Your task to perform on an android device: Clear all items from cart on amazon.com. Add "asus rog" to the cart on amazon.com, then select checkout. Image 0: 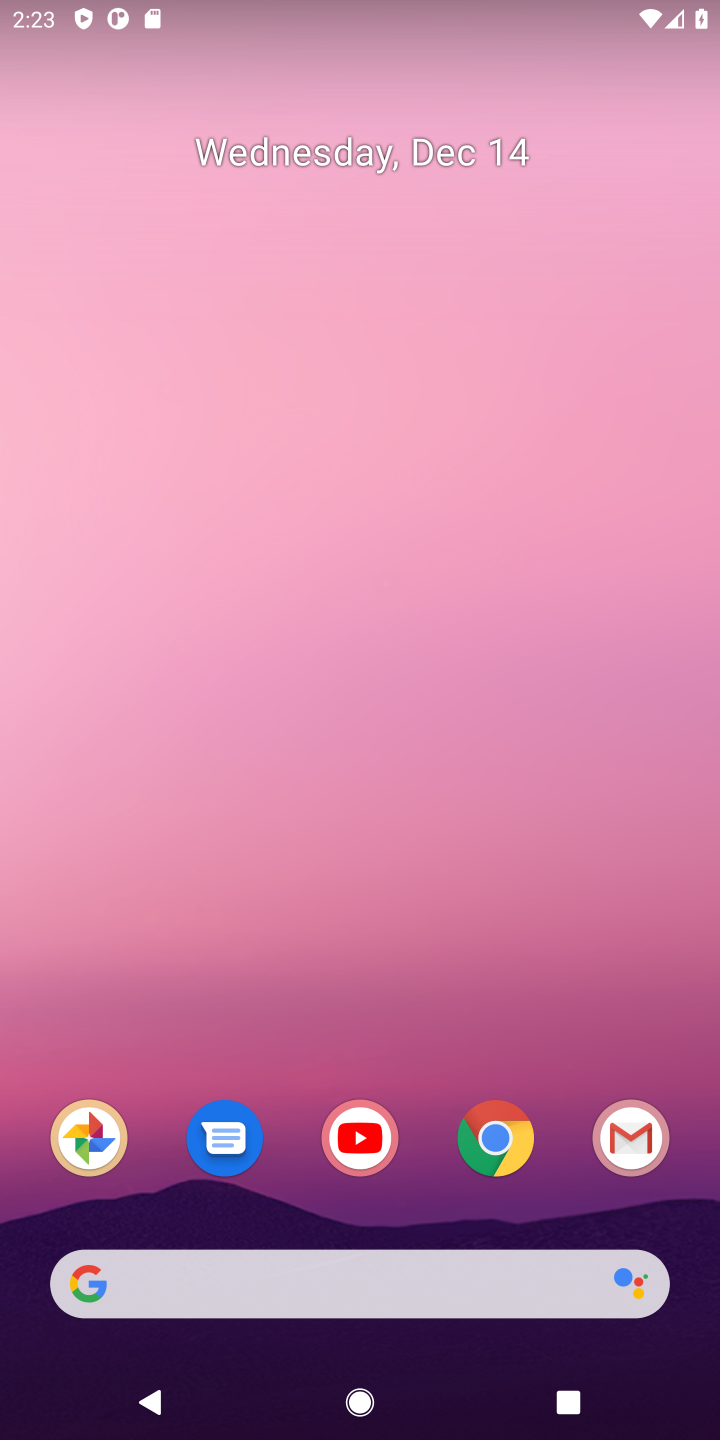
Step 0: click (492, 1122)
Your task to perform on an android device: Clear all items from cart on amazon.com. Add "asus rog" to the cart on amazon.com, then select checkout. Image 1: 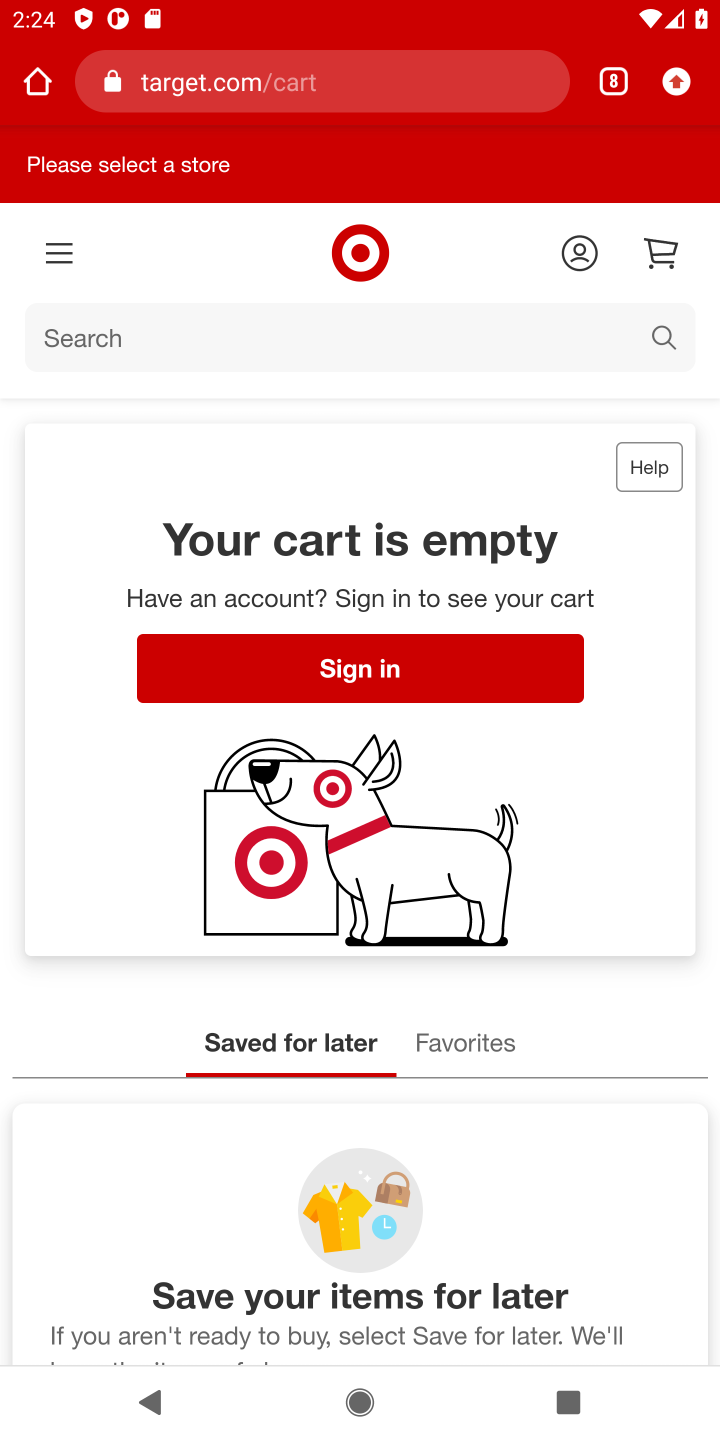
Step 1: click (616, 76)
Your task to perform on an android device: Clear all items from cart on amazon.com. Add "asus rog" to the cart on amazon.com, then select checkout. Image 2: 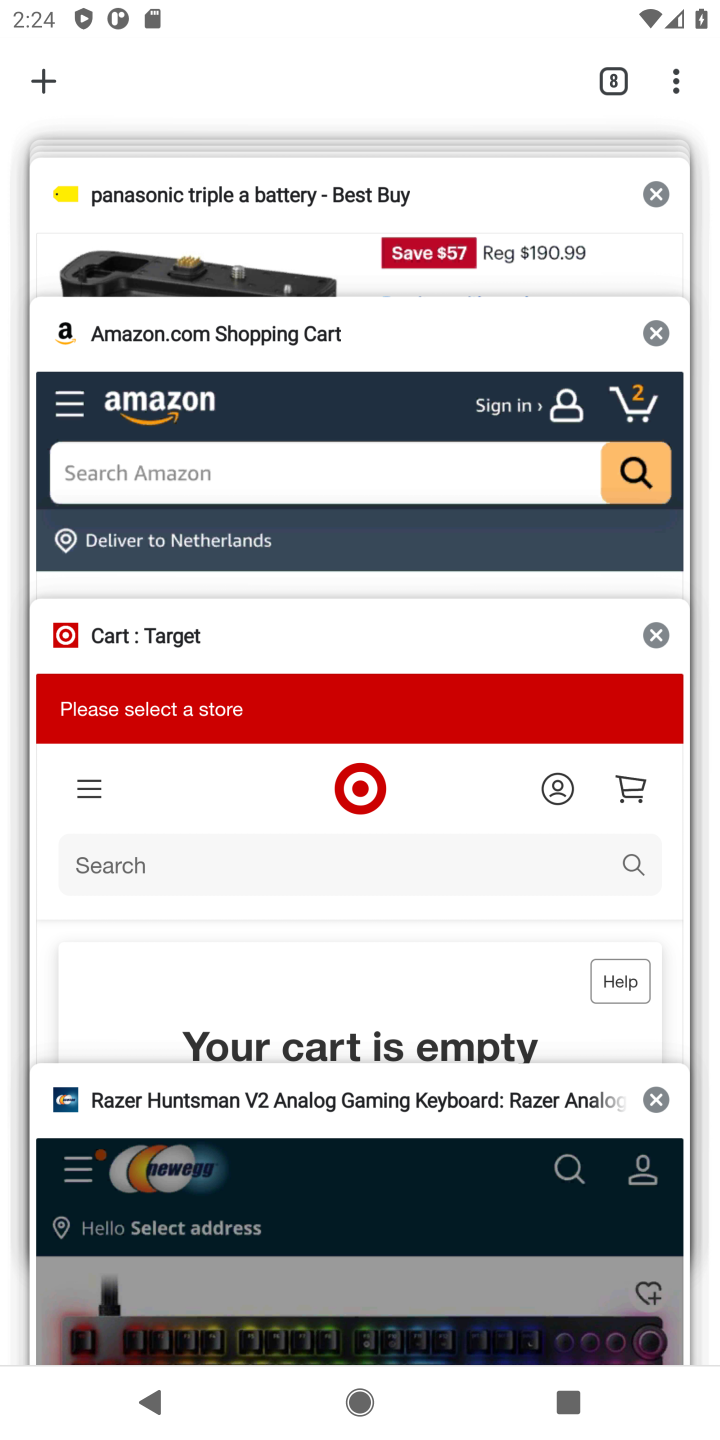
Step 2: click (409, 434)
Your task to perform on an android device: Clear all items from cart on amazon.com. Add "asus rog" to the cart on amazon.com, then select checkout. Image 3: 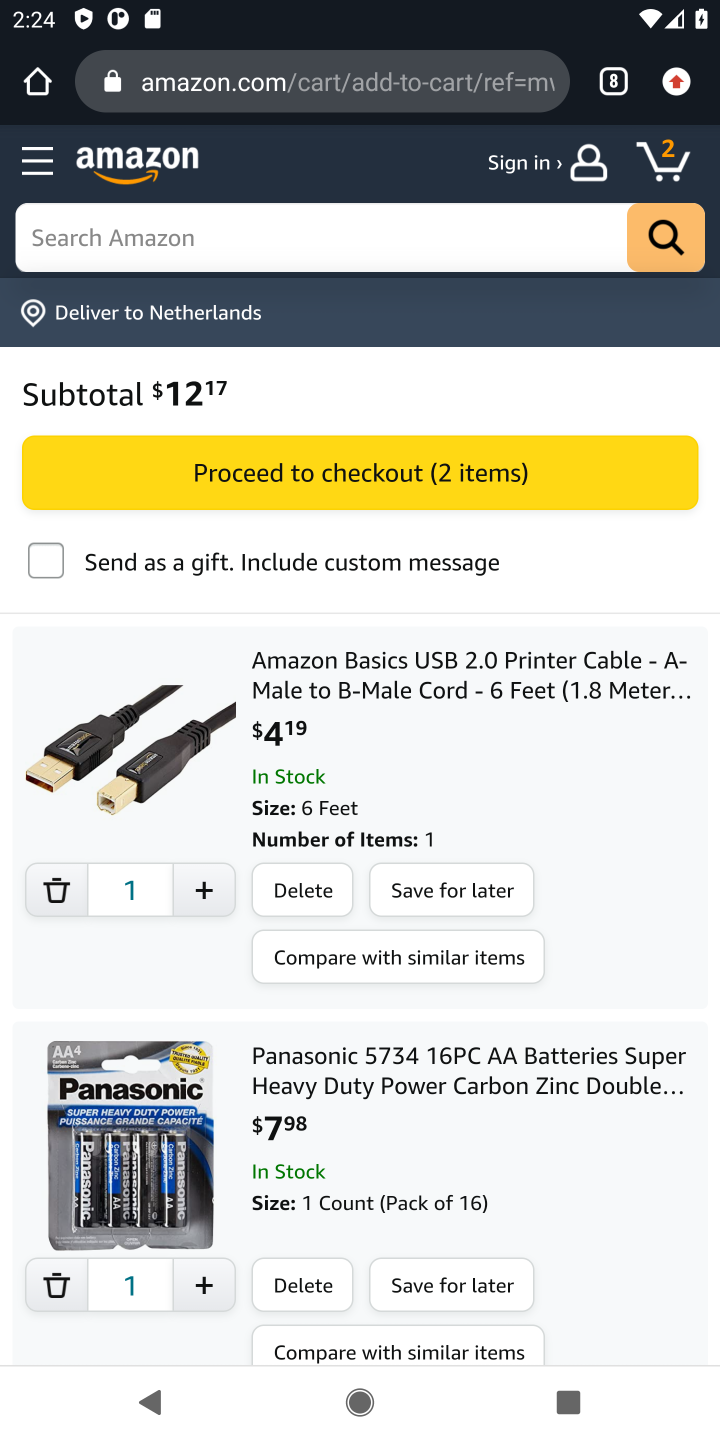
Step 3: click (305, 893)
Your task to perform on an android device: Clear all items from cart on amazon.com. Add "asus rog" to the cart on amazon.com, then select checkout. Image 4: 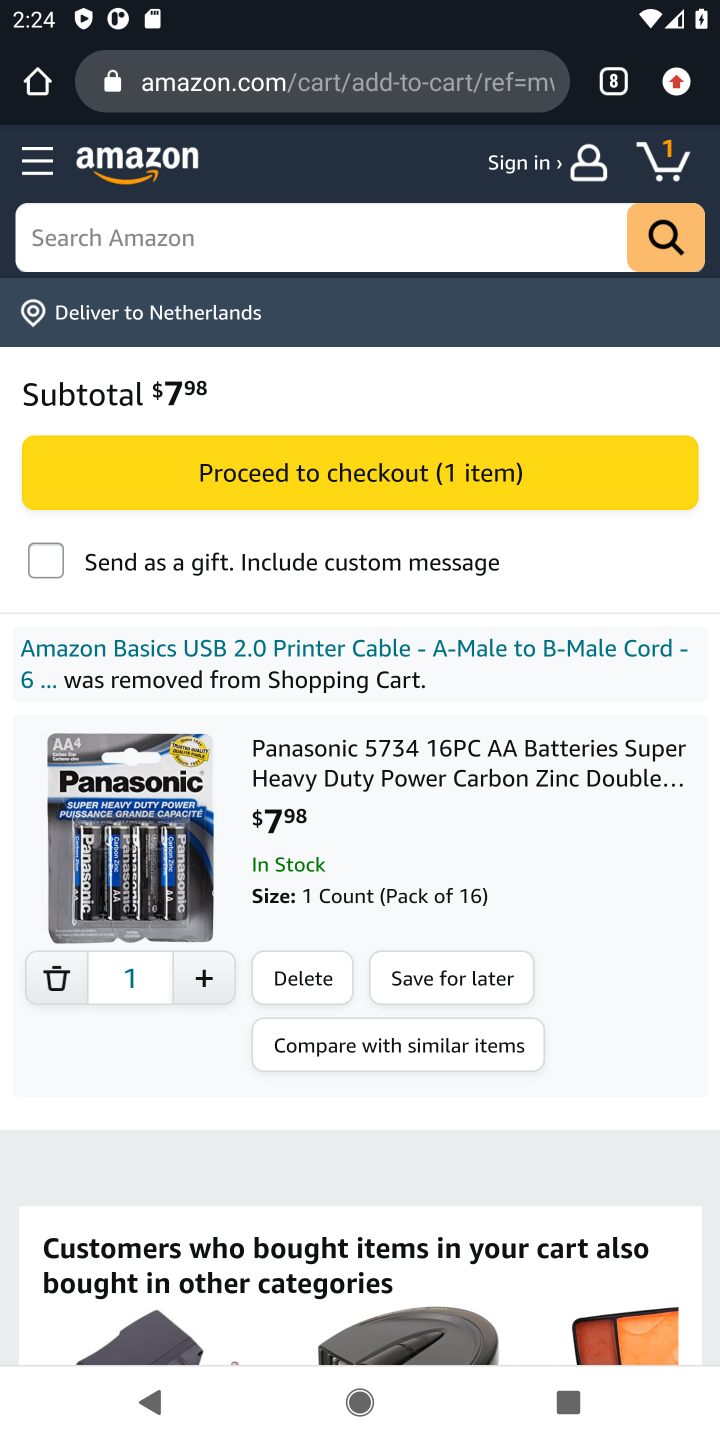
Step 4: click (298, 973)
Your task to perform on an android device: Clear all items from cart on amazon.com. Add "asus rog" to the cart on amazon.com, then select checkout. Image 5: 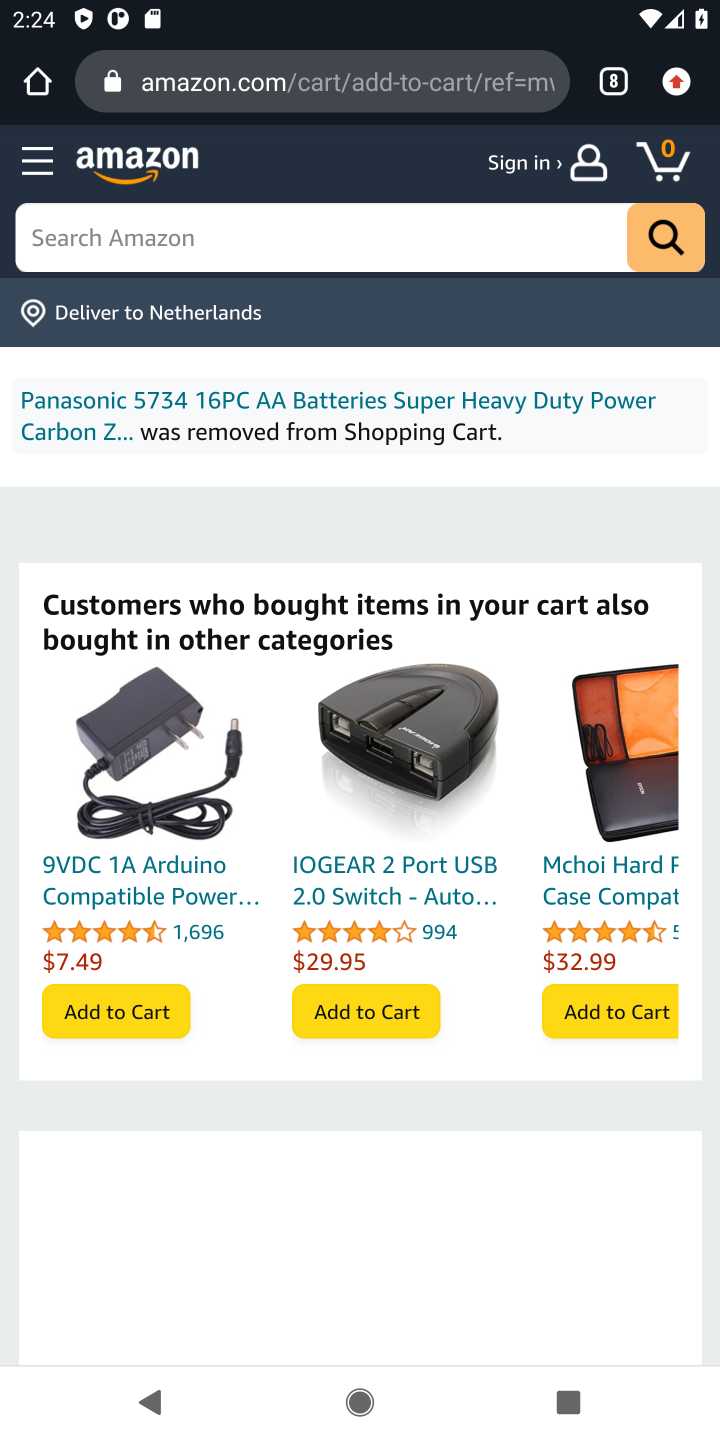
Step 5: click (191, 243)
Your task to perform on an android device: Clear all items from cart on amazon.com. Add "asus rog" to the cart on amazon.com, then select checkout. Image 6: 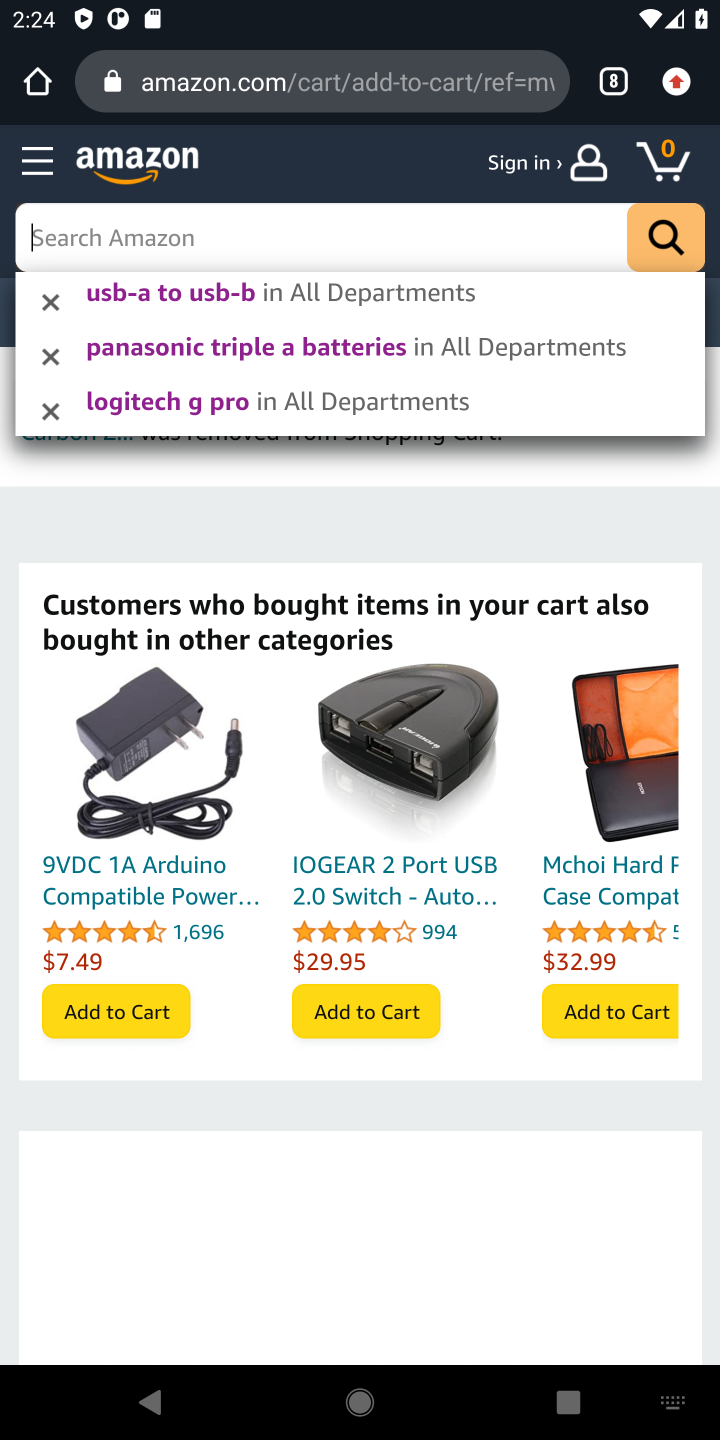
Step 6: type "asus rog"
Your task to perform on an android device: Clear all items from cart on amazon.com. Add "asus rog" to the cart on amazon.com, then select checkout. Image 7: 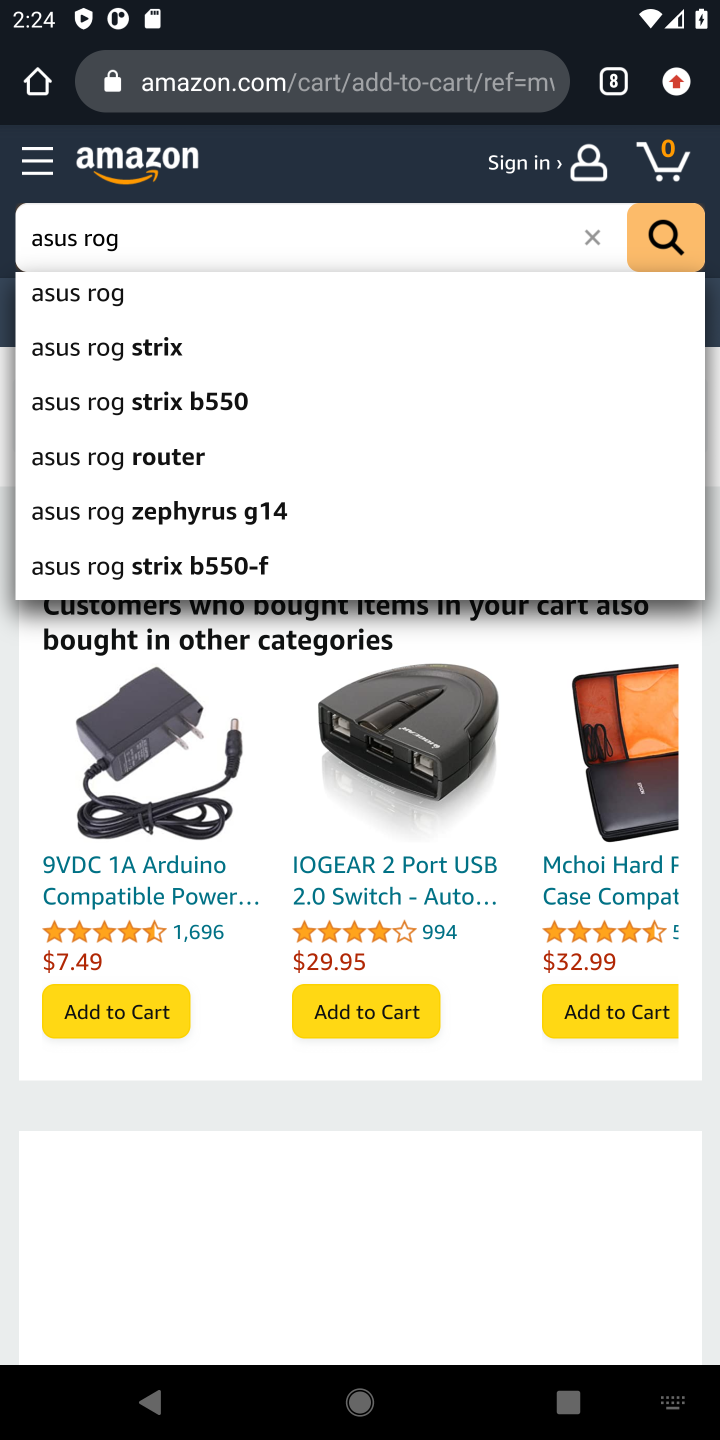
Step 7: click (108, 290)
Your task to perform on an android device: Clear all items from cart on amazon.com. Add "asus rog" to the cart on amazon.com, then select checkout. Image 8: 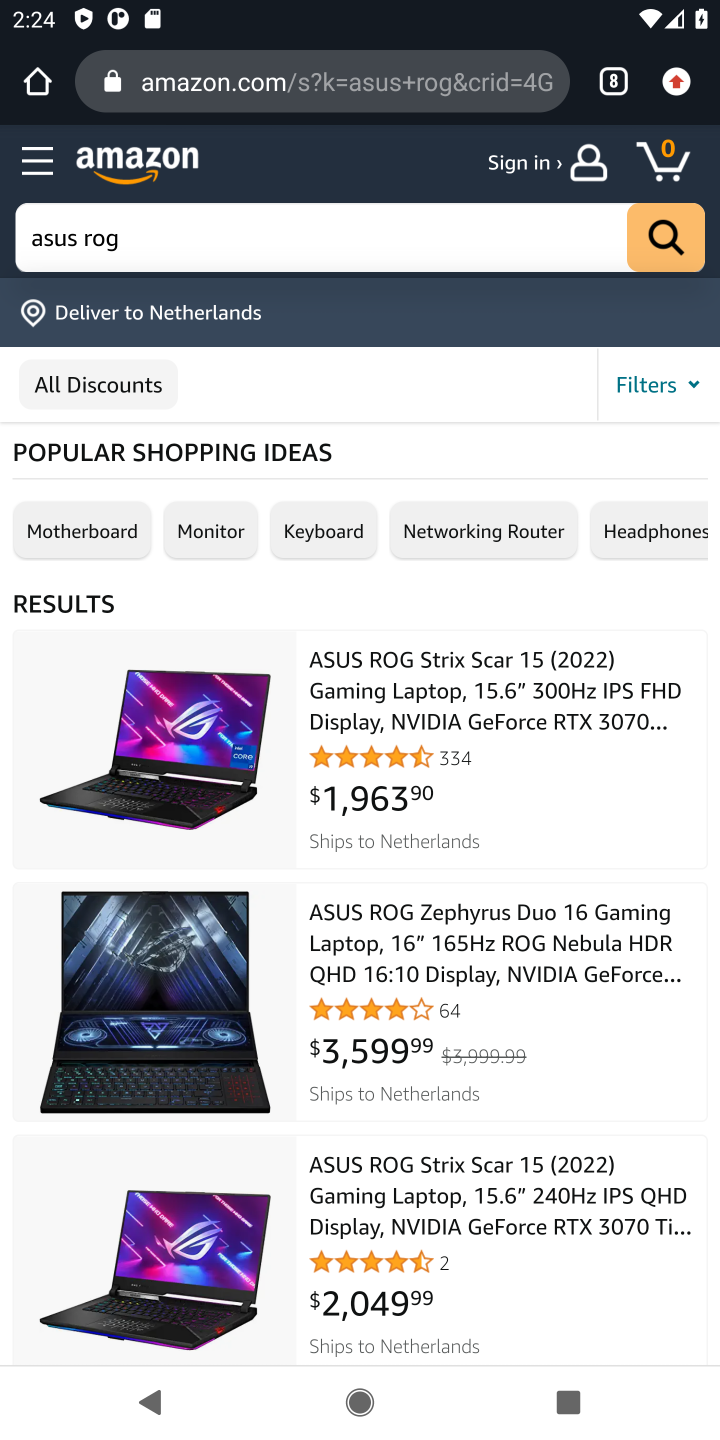
Step 8: click (427, 684)
Your task to perform on an android device: Clear all items from cart on amazon.com. Add "asus rog" to the cart on amazon.com, then select checkout. Image 9: 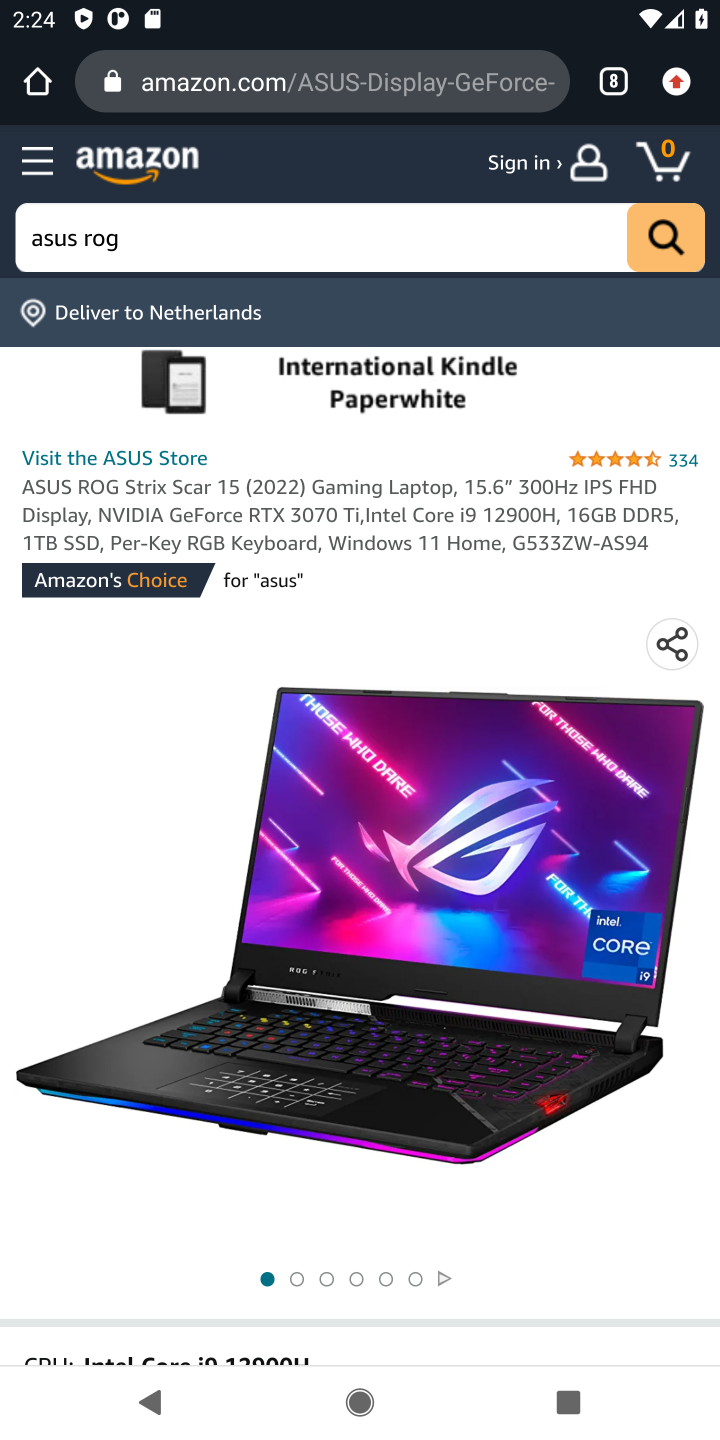
Step 9: drag from (80, 1212) to (297, 40)
Your task to perform on an android device: Clear all items from cart on amazon.com. Add "asus rog" to the cart on amazon.com, then select checkout. Image 10: 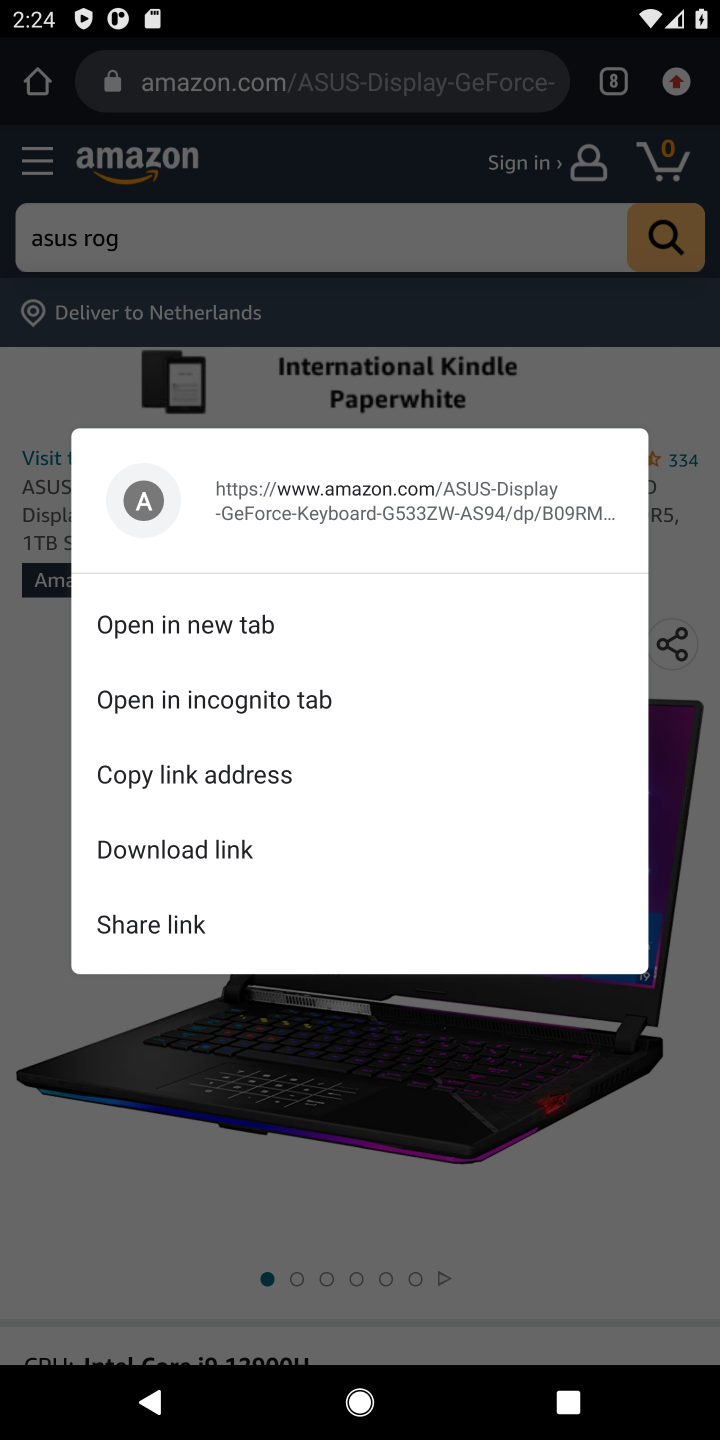
Step 10: click (145, 1167)
Your task to perform on an android device: Clear all items from cart on amazon.com. Add "asus rog" to the cart on amazon.com, then select checkout. Image 11: 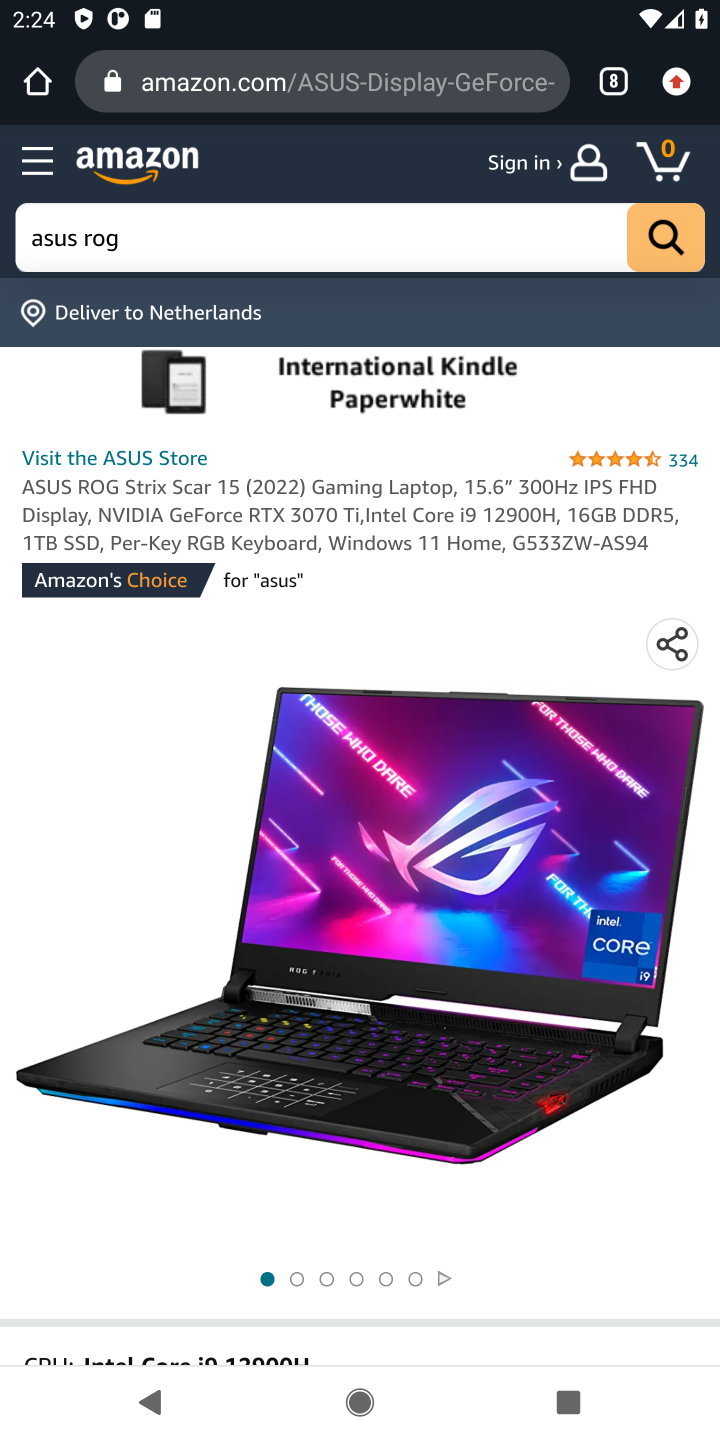
Step 11: drag from (121, 1222) to (289, 563)
Your task to perform on an android device: Clear all items from cart on amazon.com. Add "asus rog" to the cart on amazon.com, then select checkout. Image 12: 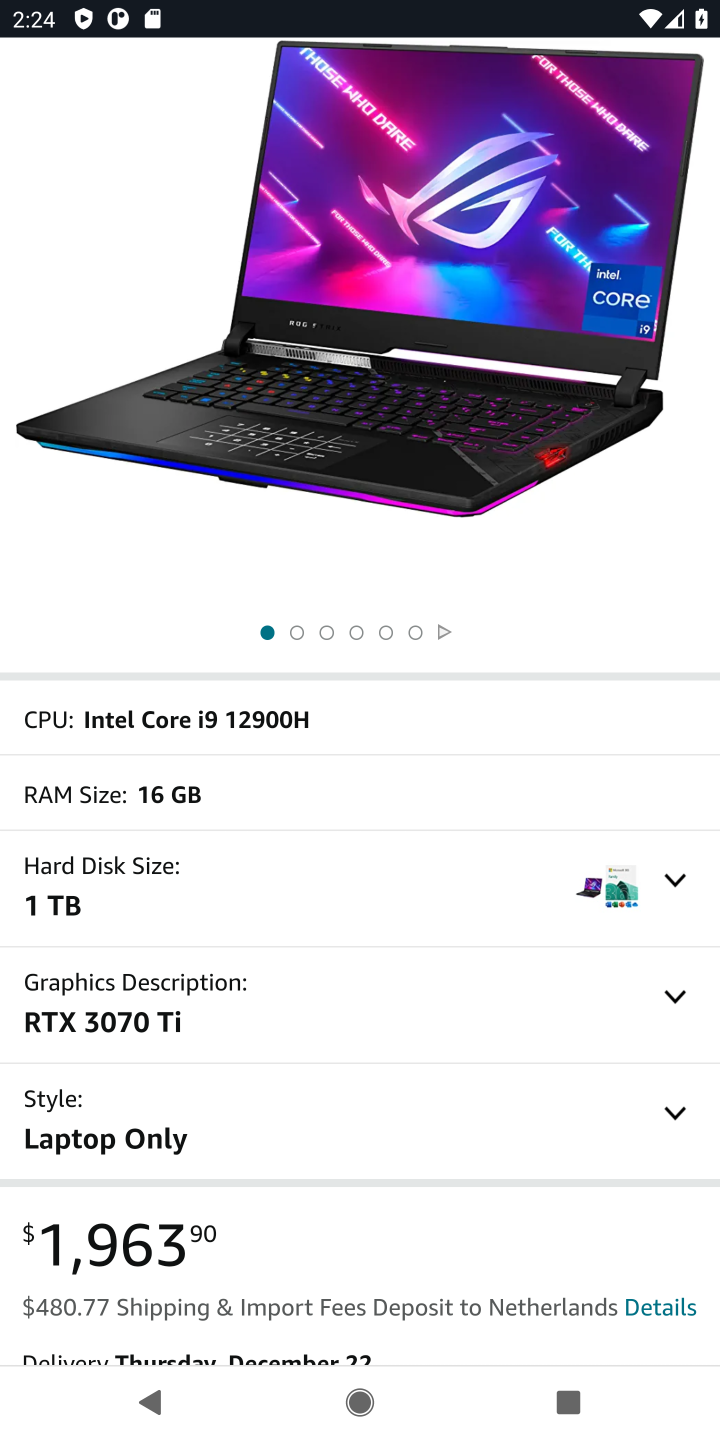
Step 12: drag from (377, 1077) to (440, 344)
Your task to perform on an android device: Clear all items from cart on amazon.com. Add "asus rog" to the cart on amazon.com, then select checkout. Image 13: 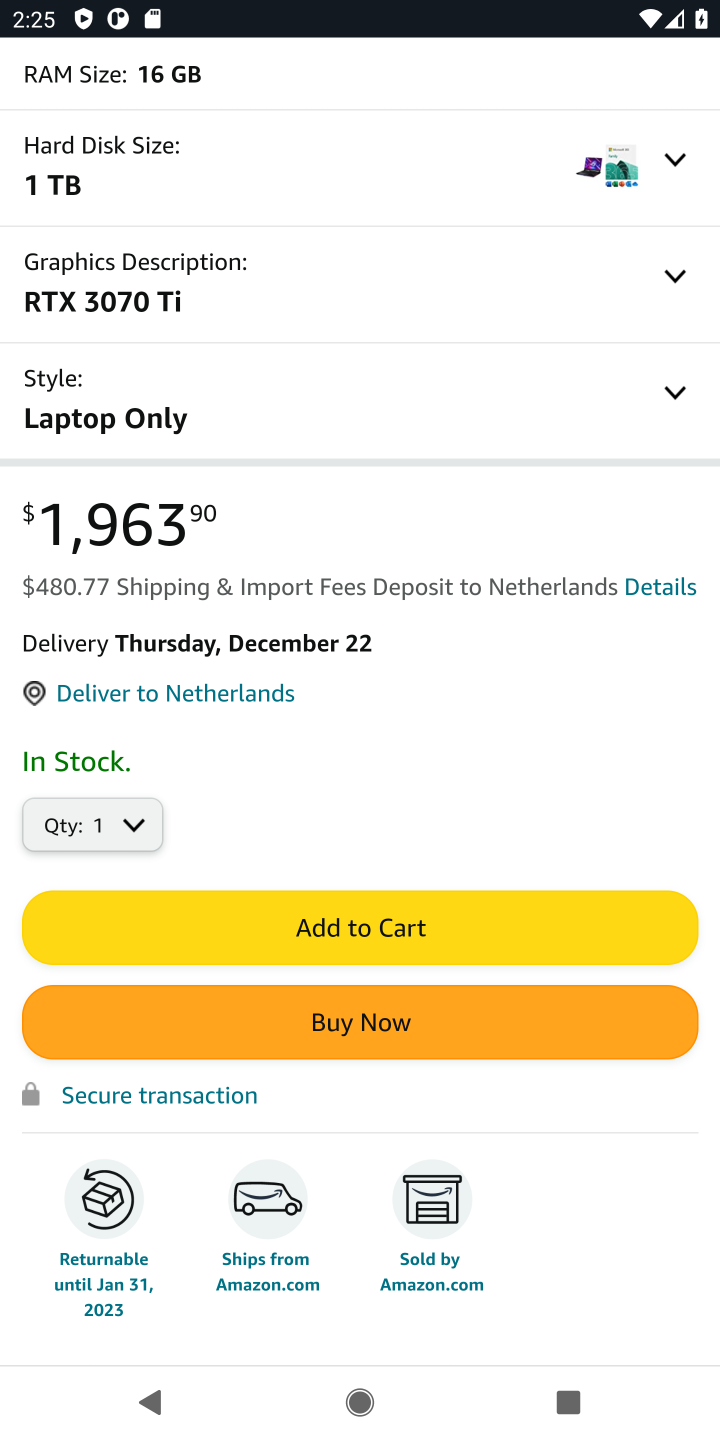
Step 13: click (286, 927)
Your task to perform on an android device: Clear all items from cart on amazon.com. Add "asus rog" to the cart on amazon.com, then select checkout. Image 14: 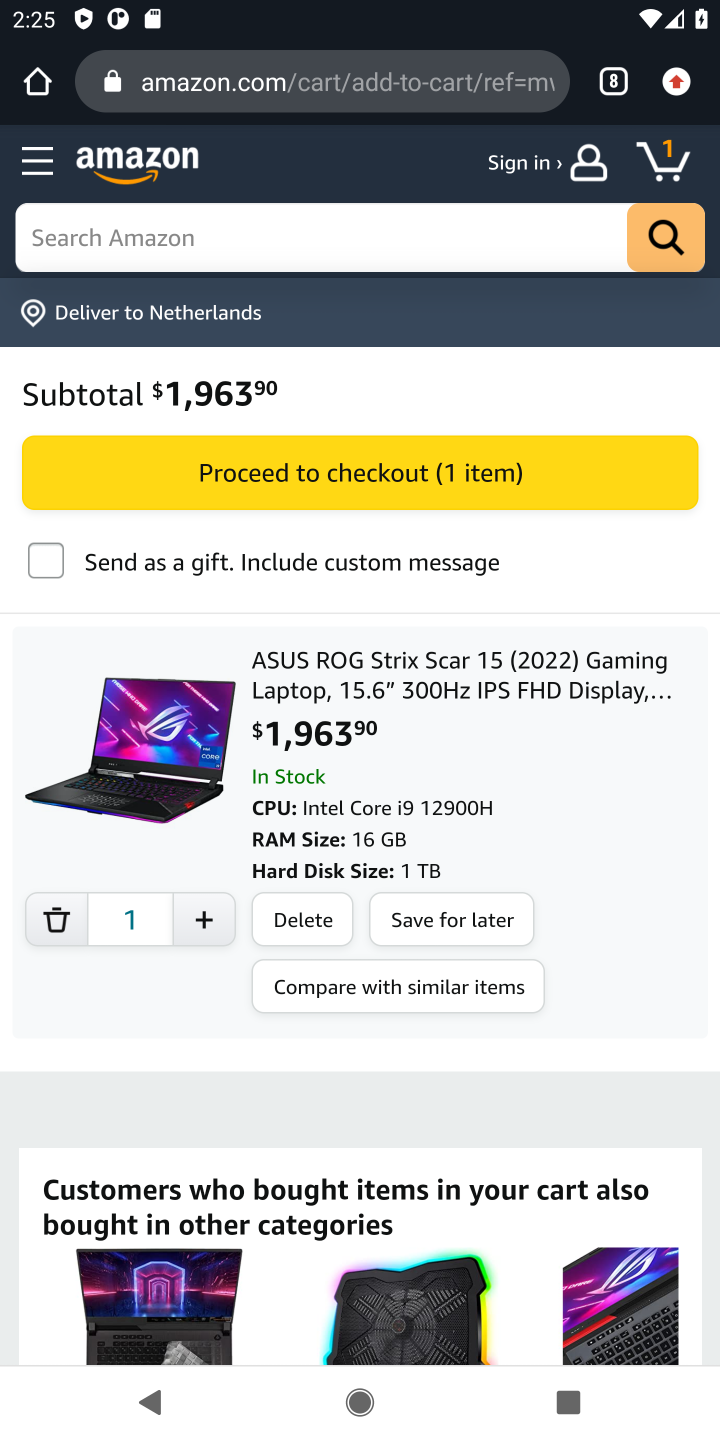
Step 14: task complete